Your task to perform on an android device: Open Google Chrome and click the shortcut for Amazon.com Image 0: 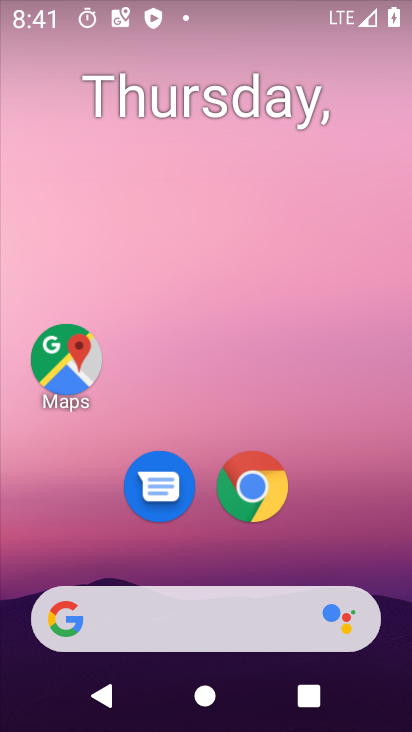
Step 0: drag from (198, 580) to (269, 114)
Your task to perform on an android device: Open Google Chrome and click the shortcut for Amazon.com Image 1: 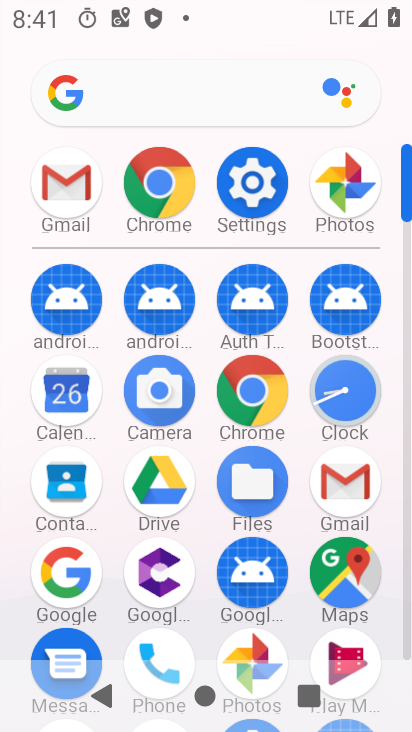
Step 1: click (262, 404)
Your task to perform on an android device: Open Google Chrome and click the shortcut for Amazon.com Image 2: 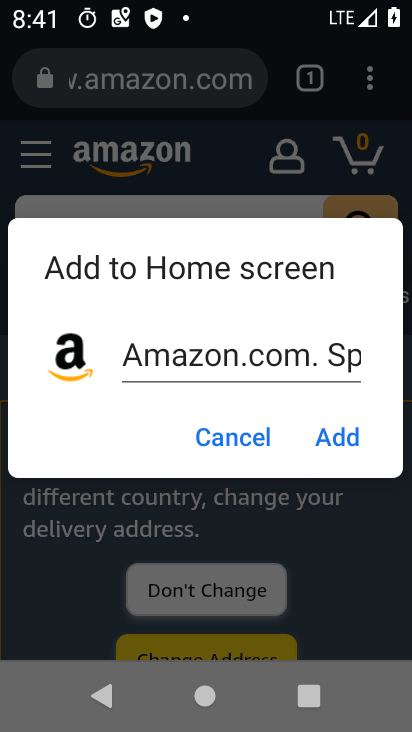
Step 2: click (237, 437)
Your task to perform on an android device: Open Google Chrome and click the shortcut for Amazon.com Image 3: 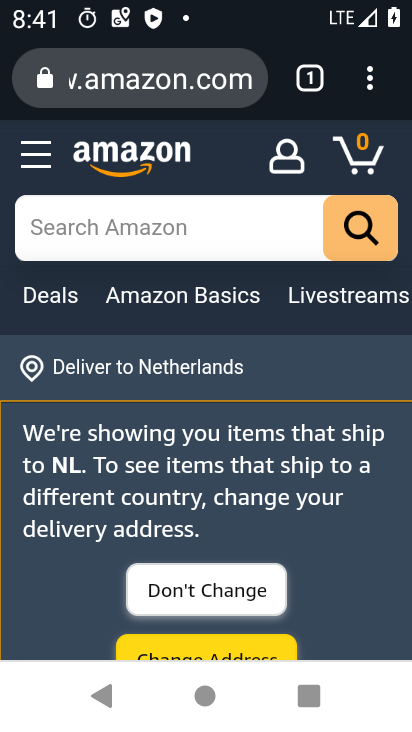
Step 3: drag from (251, 95) to (245, 256)
Your task to perform on an android device: Open Google Chrome and click the shortcut for Amazon.com Image 4: 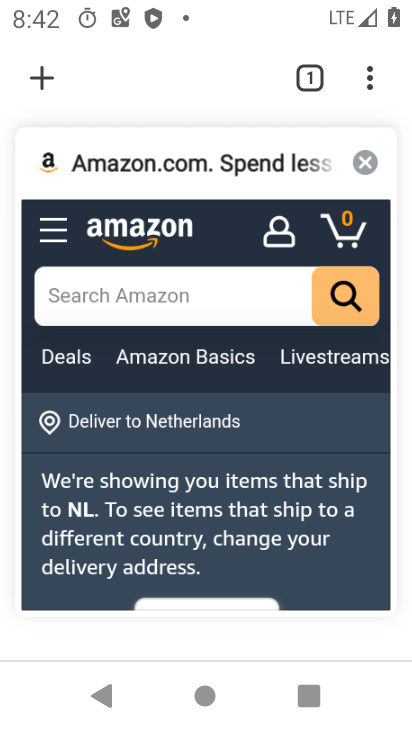
Step 4: click (42, 82)
Your task to perform on an android device: Open Google Chrome and click the shortcut for Amazon.com Image 5: 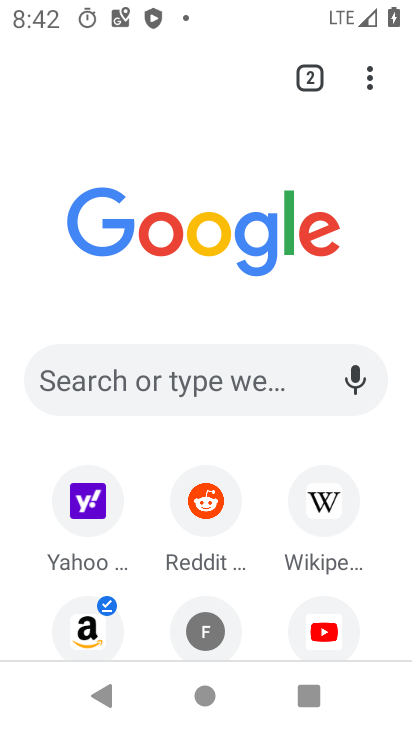
Step 5: drag from (261, 492) to (265, 272)
Your task to perform on an android device: Open Google Chrome and click the shortcut for Amazon.com Image 6: 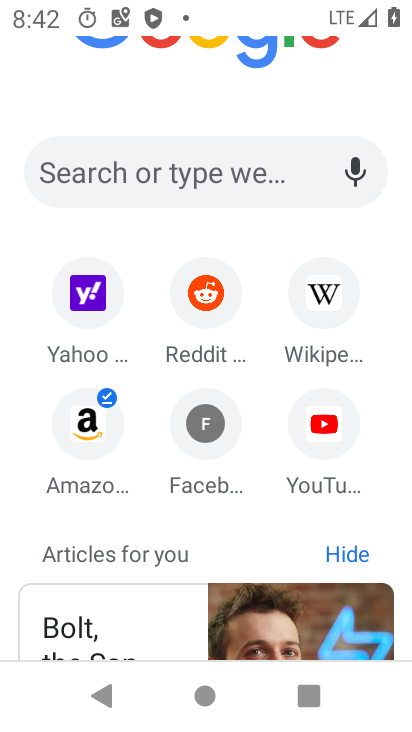
Step 6: click (112, 427)
Your task to perform on an android device: Open Google Chrome and click the shortcut for Amazon.com Image 7: 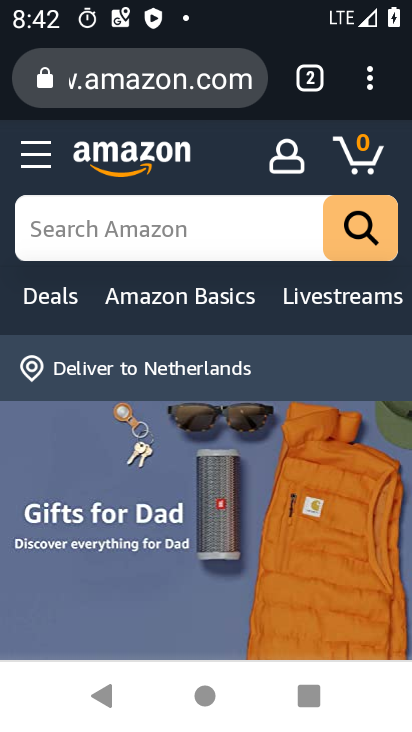
Step 7: task complete